Your task to perform on an android device: Open settings on Google Maps Image 0: 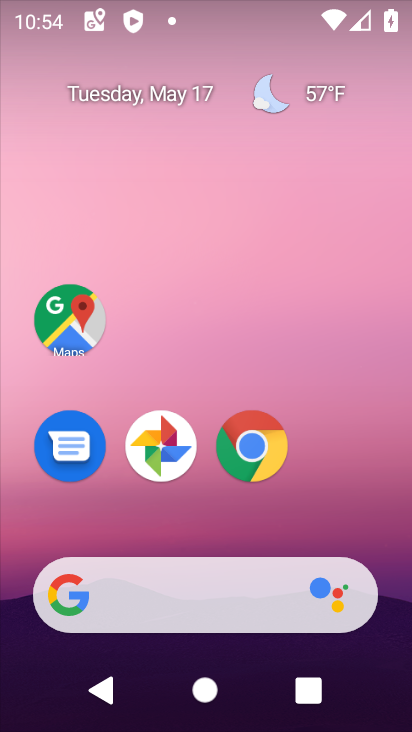
Step 0: click (72, 328)
Your task to perform on an android device: Open settings on Google Maps Image 1: 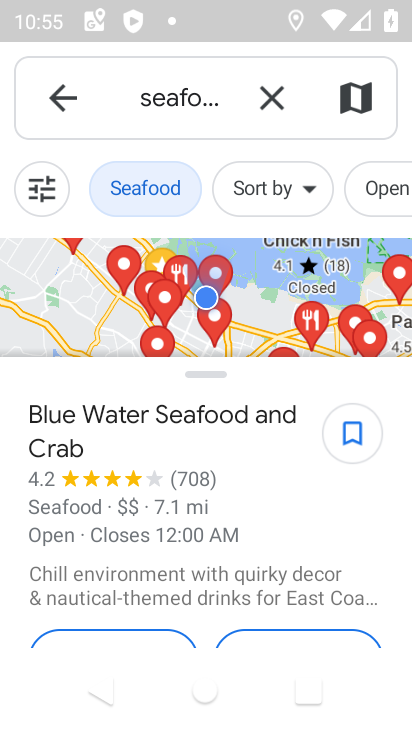
Step 1: click (55, 100)
Your task to perform on an android device: Open settings on Google Maps Image 2: 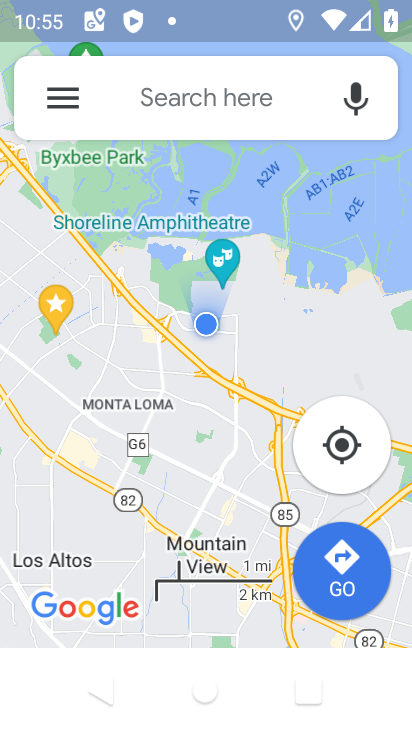
Step 2: click (55, 100)
Your task to perform on an android device: Open settings on Google Maps Image 3: 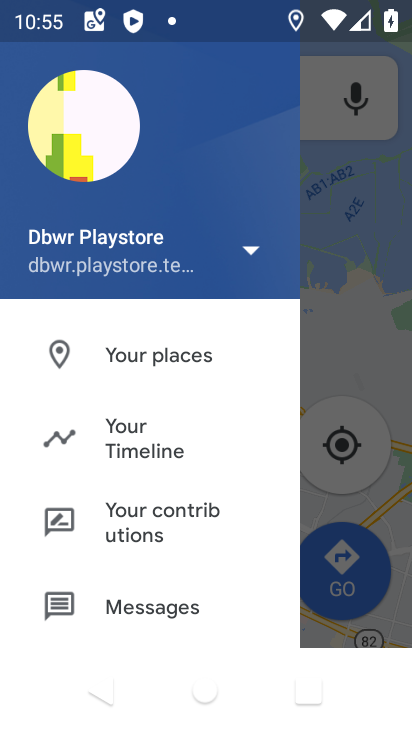
Step 3: drag from (178, 545) to (161, 28)
Your task to perform on an android device: Open settings on Google Maps Image 4: 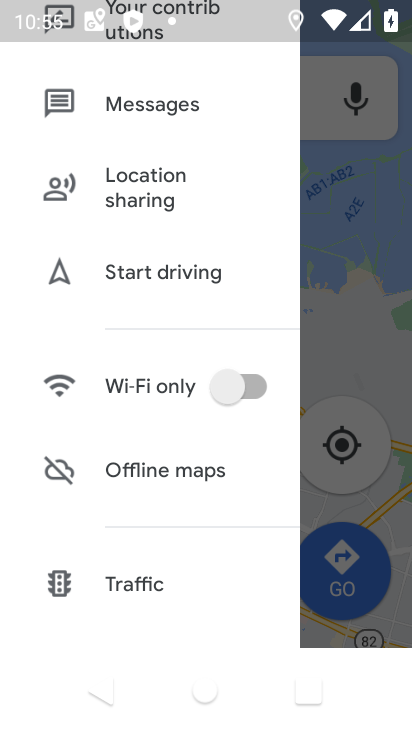
Step 4: drag from (216, 577) to (202, 167)
Your task to perform on an android device: Open settings on Google Maps Image 5: 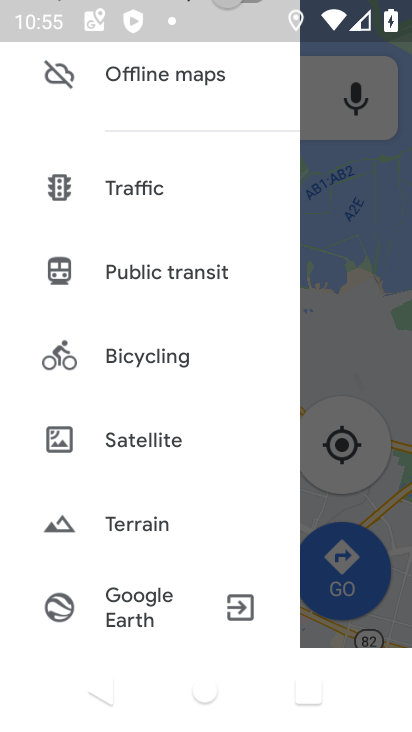
Step 5: drag from (174, 544) to (197, 30)
Your task to perform on an android device: Open settings on Google Maps Image 6: 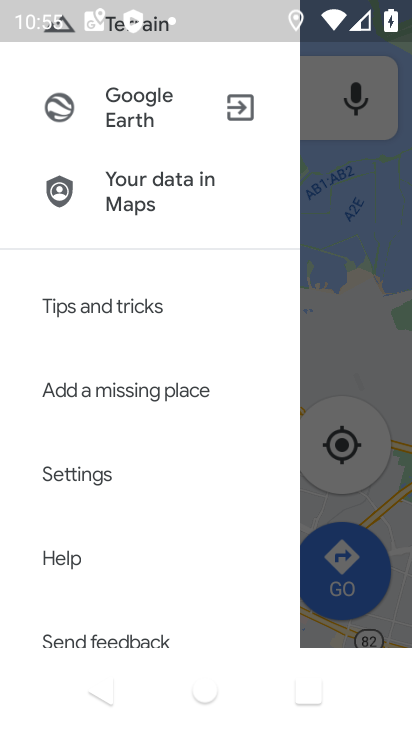
Step 6: click (95, 470)
Your task to perform on an android device: Open settings on Google Maps Image 7: 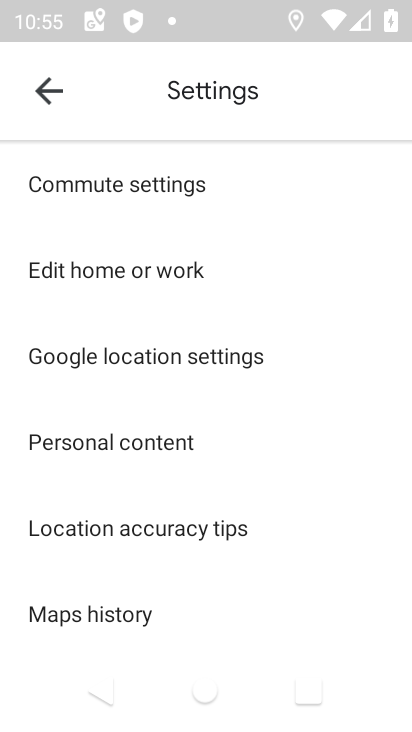
Step 7: task complete